Your task to perform on an android device: Go to battery settings Image 0: 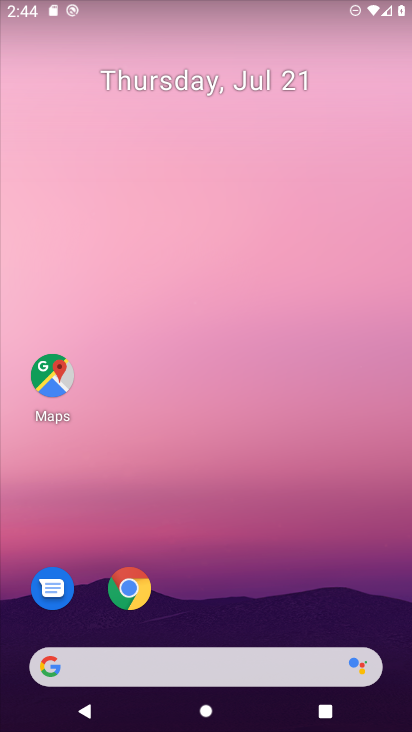
Step 0: drag from (141, 640) to (154, 145)
Your task to perform on an android device: Go to battery settings Image 1: 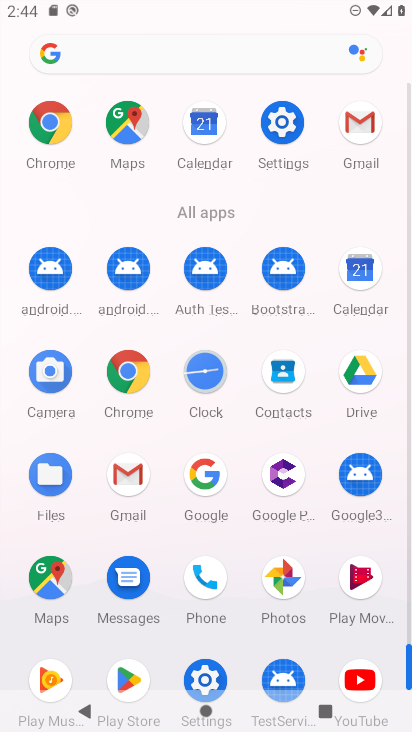
Step 1: click (282, 139)
Your task to perform on an android device: Go to battery settings Image 2: 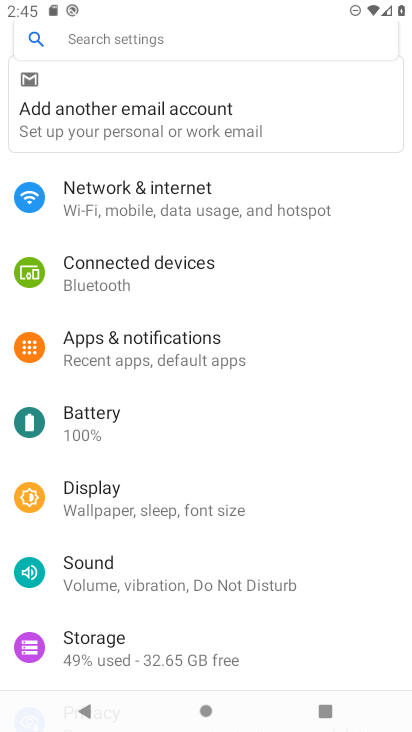
Step 2: click (197, 438)
Your task to perform on an android device: Go to battery settings Image 3: 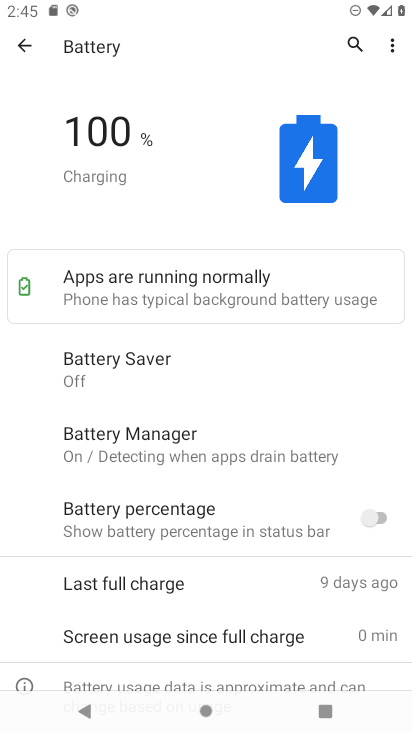
Step 3: task complete